Your task to perform on an android device: turn pop-ups on in chrome Image 0: 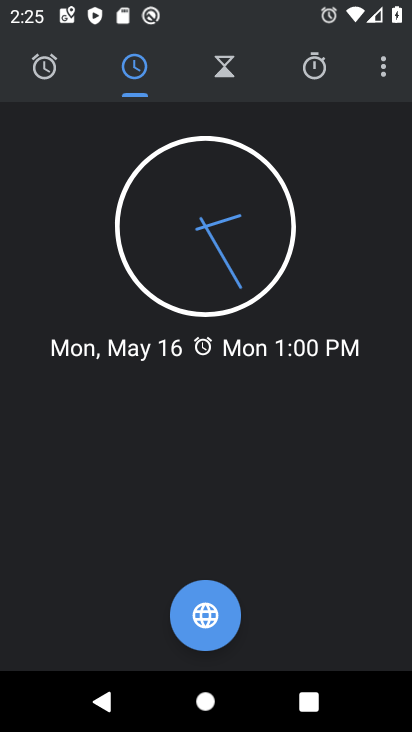
Step 0: press home button
Your task to perform on an android device: turn pop-ups on in chrome Image 1: 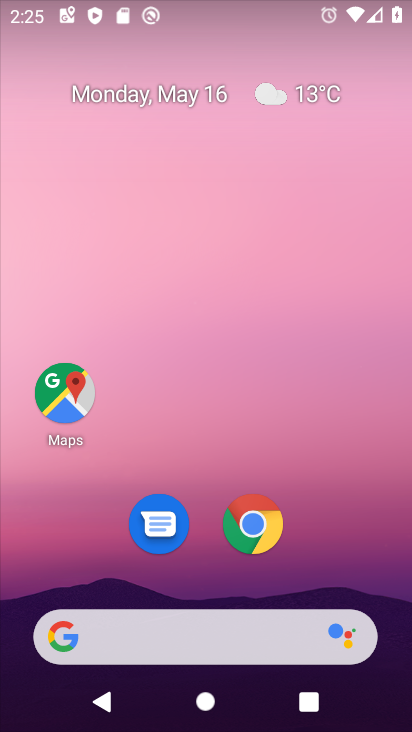
Step 1: drag from (200, 447) to (211, 23)
Your task to perform on an android device: turn pop-ups on in chrome Image 2: 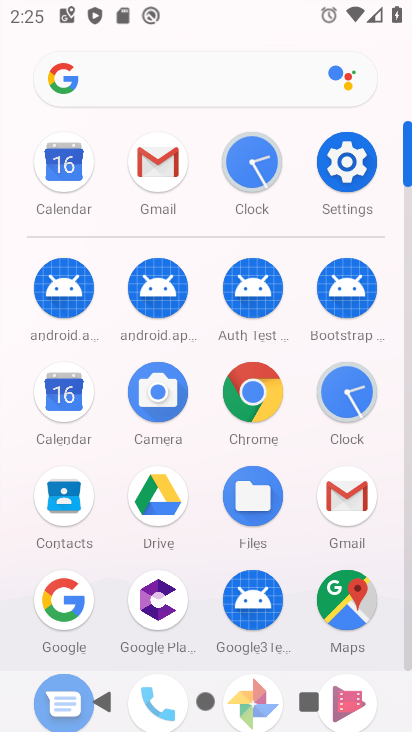
Step 2: click (253, 388)
Your task to perform on an android device: turn pop-ups on in chrome Image 3: 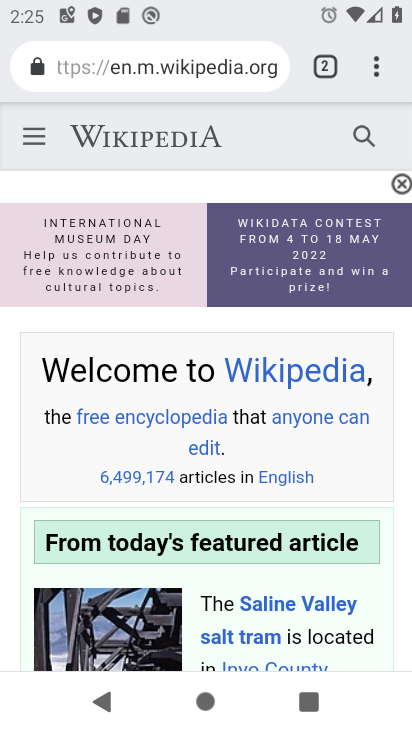
Step 3: click (370, 64)
Your task to perform on an android device: turn pop-ups on in chrome Image 4: 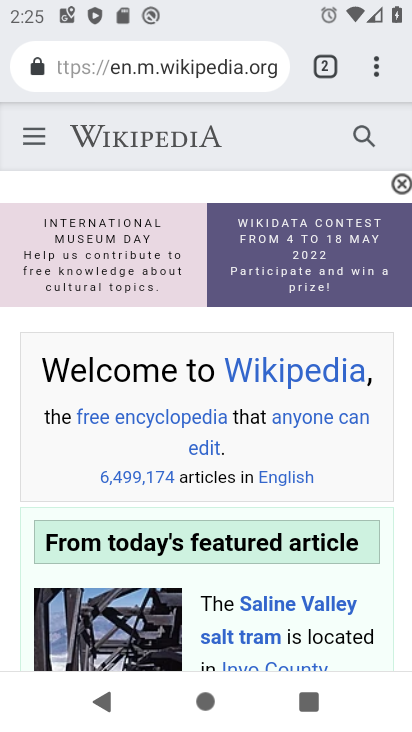
Step 4: click (370, 64)
Your task to perform on an android device: turn pop-ups on in chrome Image 5: 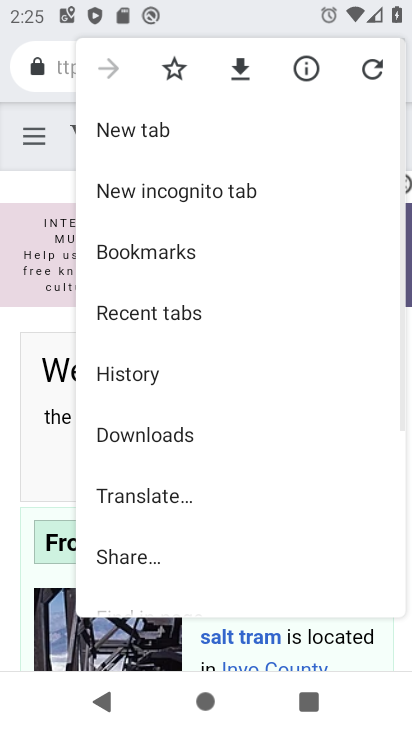
Step 5: drag from (210, 474) to (258, 178)
Your task to perform on an android device: turn pop-ups on in chrome Image 6: 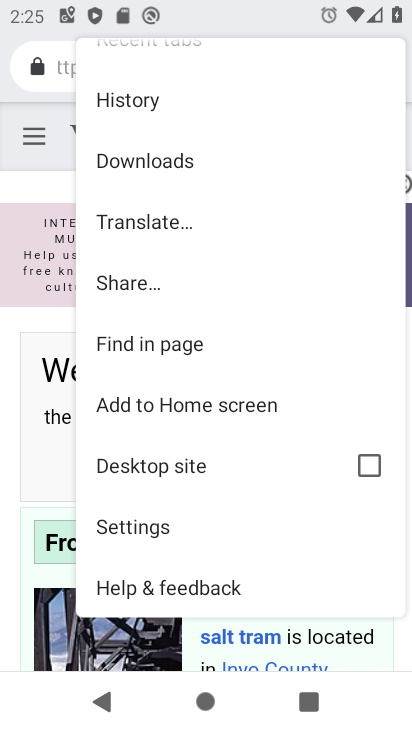
Step 6: click (172, 529)
Your task to perform on an android device: turn pop-ups on in chrome Image 7: 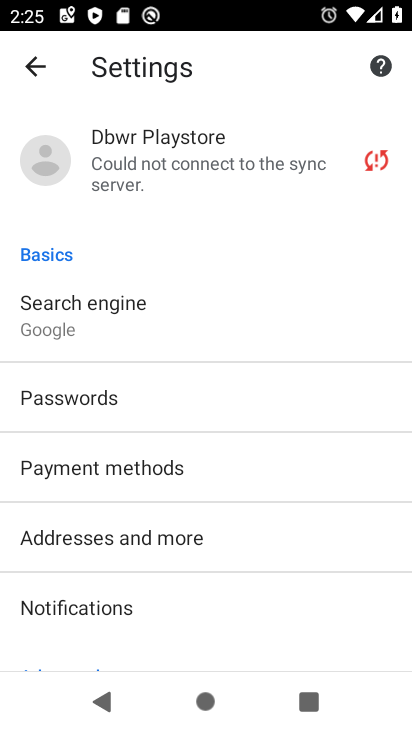
Step 7: drag from (243, 547) to (264, 191)
Your task to perform on an android device: turn pop-ups on in chrome Image 8: 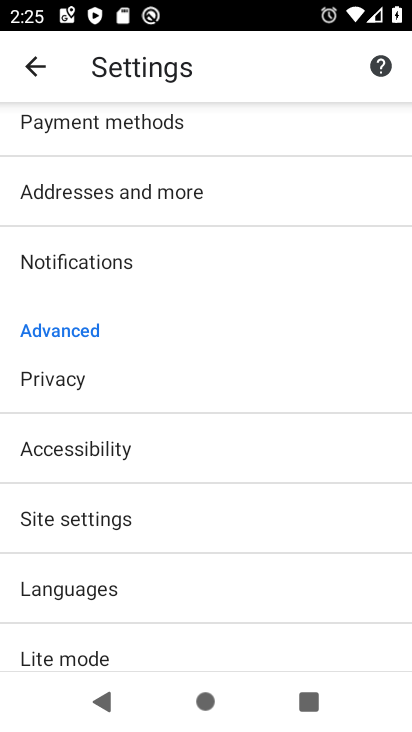
Step 8: click (161, 518)
Your task to perform on an android device: turn pop-ups on in chrome Image 9: 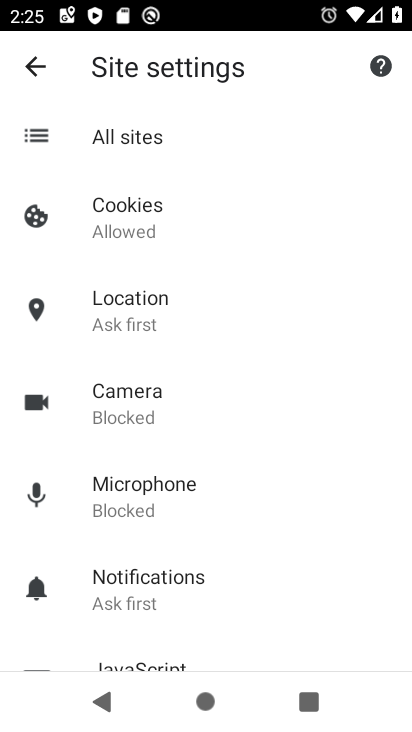
Step 9: drag from (222, 522) to (252, 238)
Your task to perform on an android device: turn pop-ups on in chrome Image 10: 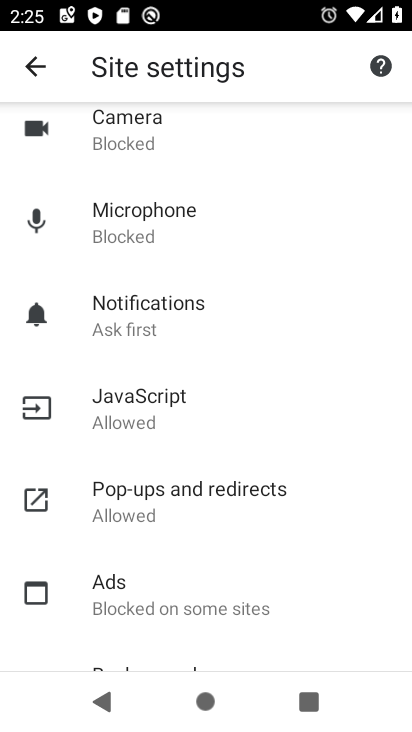
Step 10: click (173, 504)
Your task to perform on an android device: turn pop-ups on in chrome Image 11: 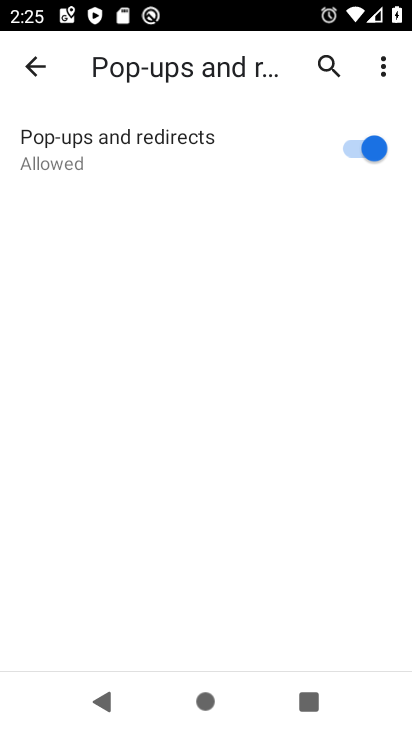
Step 11: task complete